Your task to perform on an android device: stop showing notifications on the lock screen Image 0: 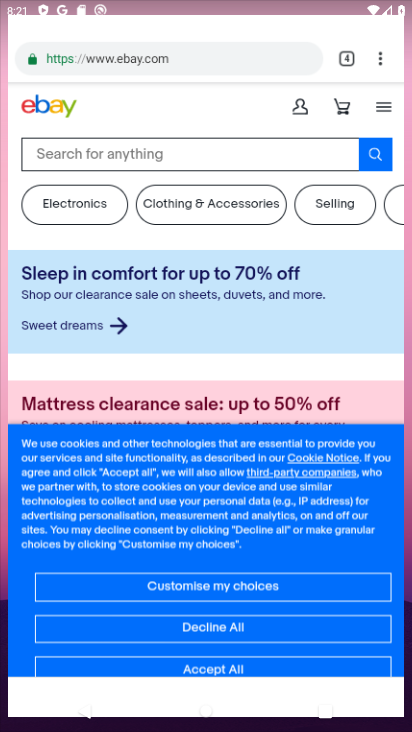
Step 0: drag from (245, 708) to (210, 215)
Your task to perform on an android device: stop showing notifications on the lock screen Image 1: 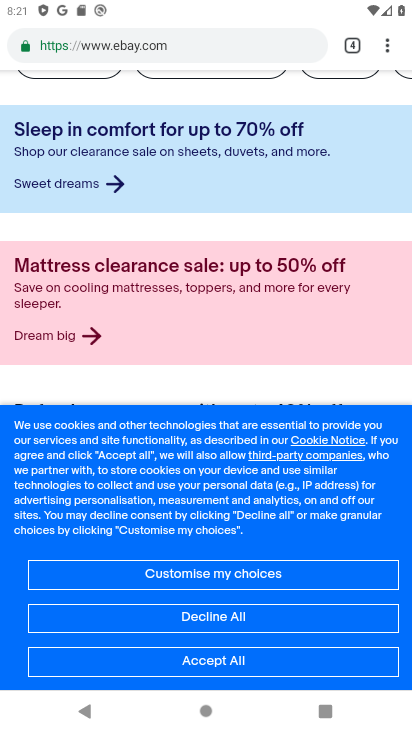
Step 1: press back button
Your task to perform on an android device: stop showing notifications on the lock screen Image 2: 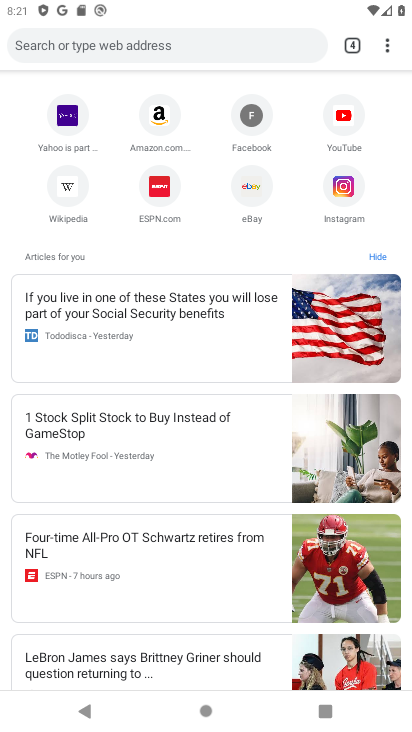
Step 2: press home button
Your task to perform on an android device: stop showing notifications on the lock screen Image 3: 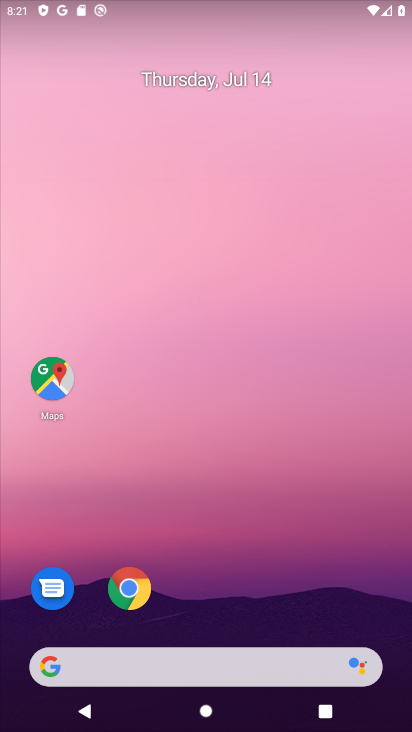
Step 3: drag from (288, 637) to (211, 42)
Your task to perform on an android device: stop showing notifications on the lock screen Image 4: 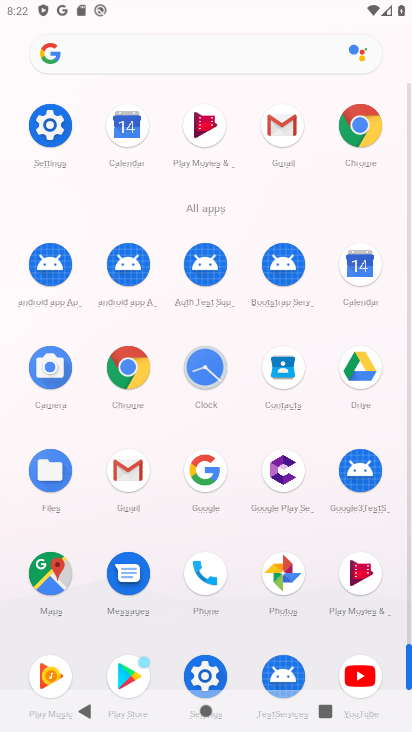
Step 4: click (42, 135)
Your task to perform on an android device: stop showing notifications on the lock screen Image 5: 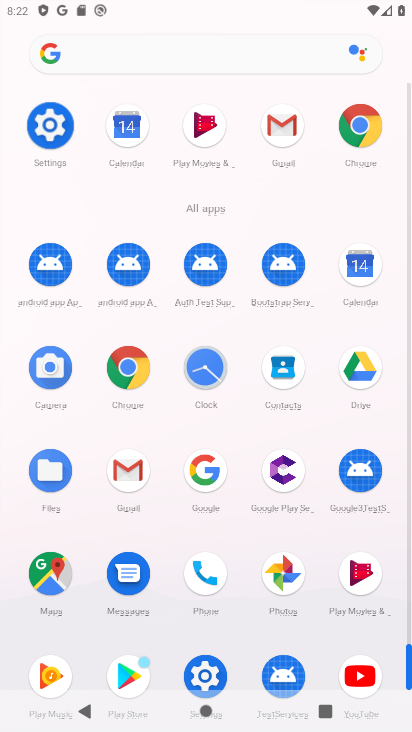
Step 5: click (44, 130)
Your task to perform on an android device: stop showing notifications on the lock screen Image 6: 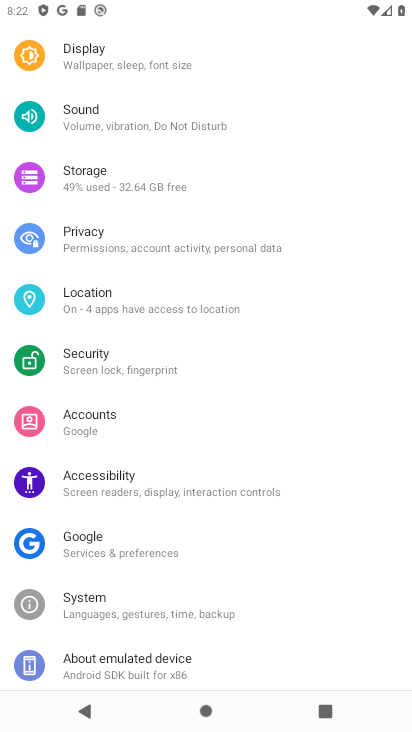
Step 6: click (54, 128)
Your task to perform on an android device: stop showing notifications on the lock screen Image 7: 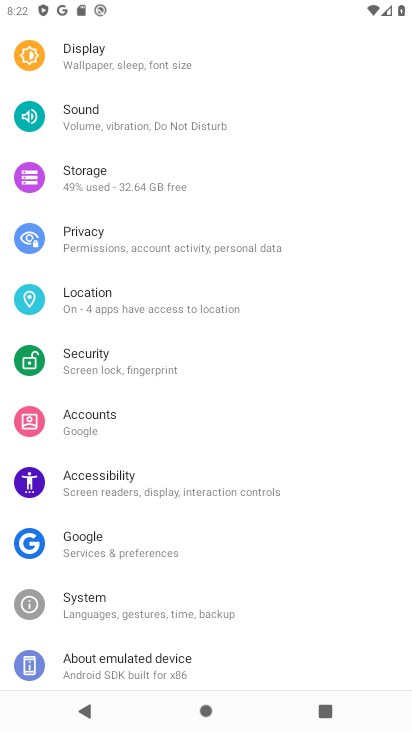
Step 7: click (54, 128)
Your task to perform on an android device: stop showing notifications on the lock screen Image 8: 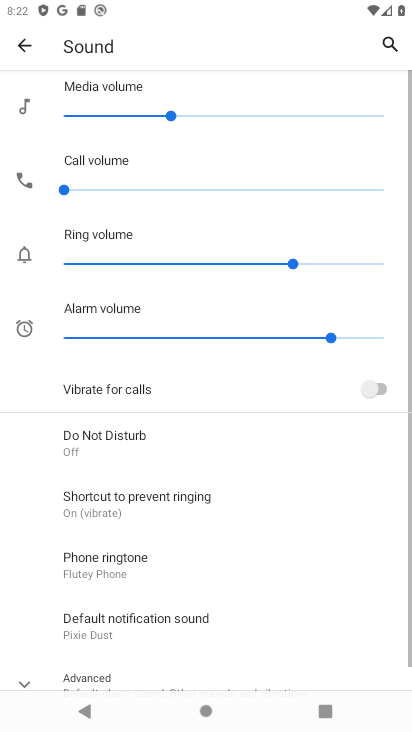
Step 8: click (25, 38)
Your task to perform on an android device: stop showing notifications on the lock screen Image 9: 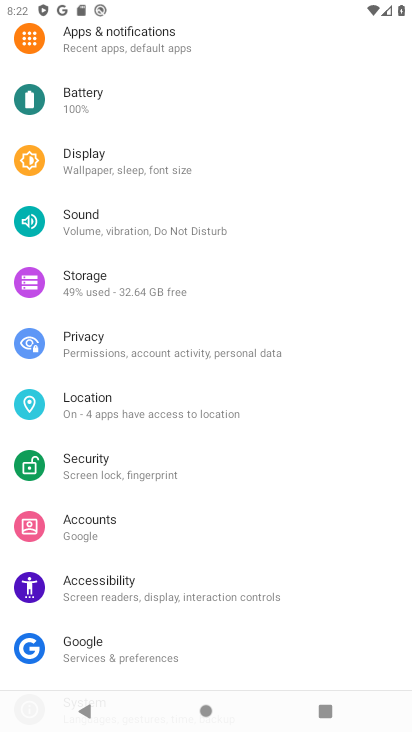
Step 9: click (122, 35)
Your task to perform on an android device: stop showing notifications on the lock screen Image 10: 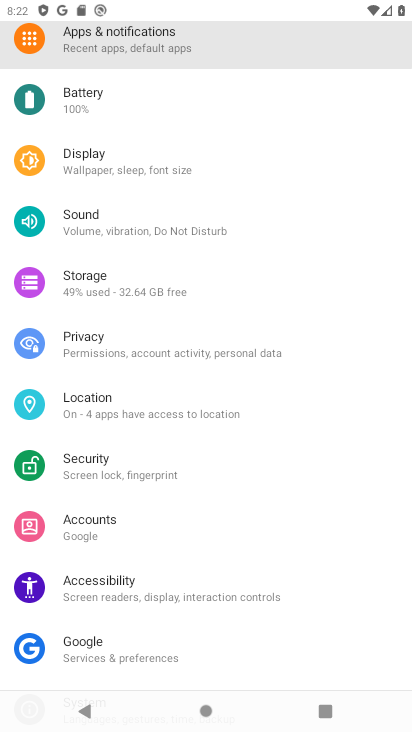
Step 10: click (122, 35)
Your task to perform on an android device: stop showing notifications on the lock screen Image 11: 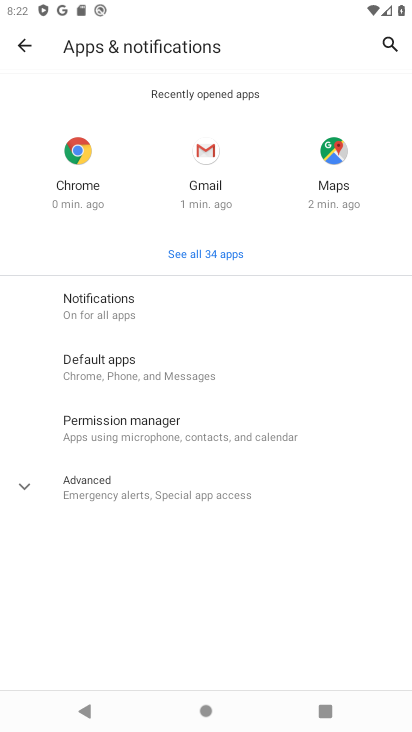
Step 11: click (96, 298)
Your task to perform on an android device: stop showing notifications on the lock screen Image 12: 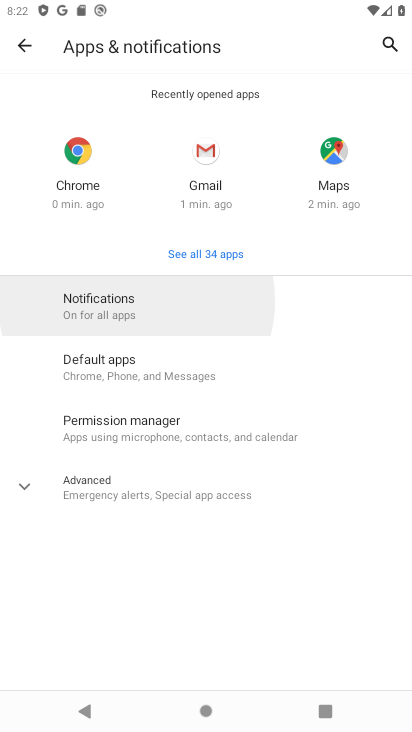
Step 12: click (96, 301)
Your task to perform on an android device: stop showing notifications on the lock screen Image 13: 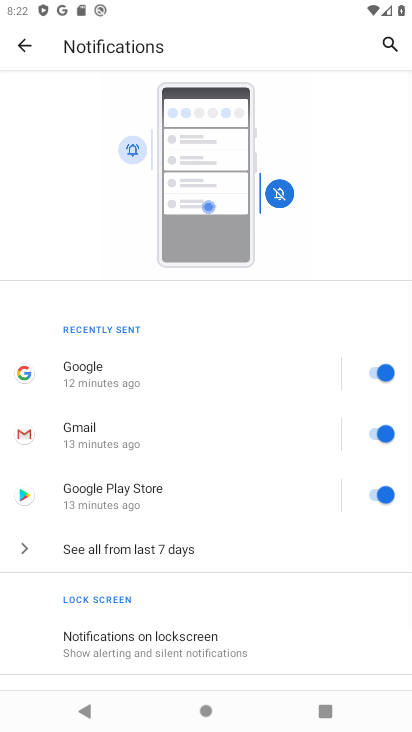
Step 13: click (138, 639)
Your task to perform on an android device: stop showing notifications on the lock screen Image 14: 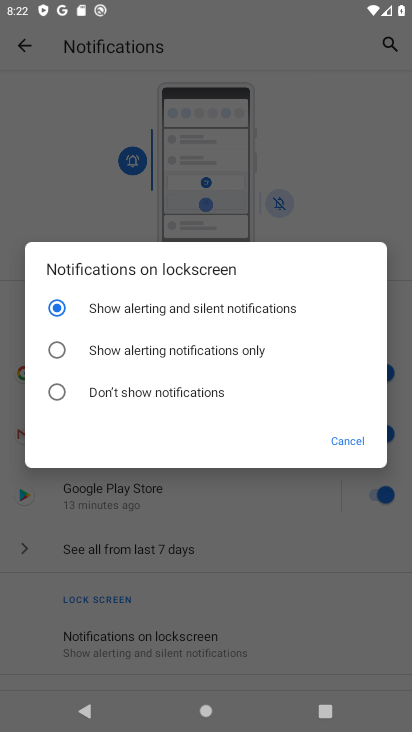
Step 14: click (349, 440)
Your task to perform on an android device: stop showing notifications on the lock screen Image 15: 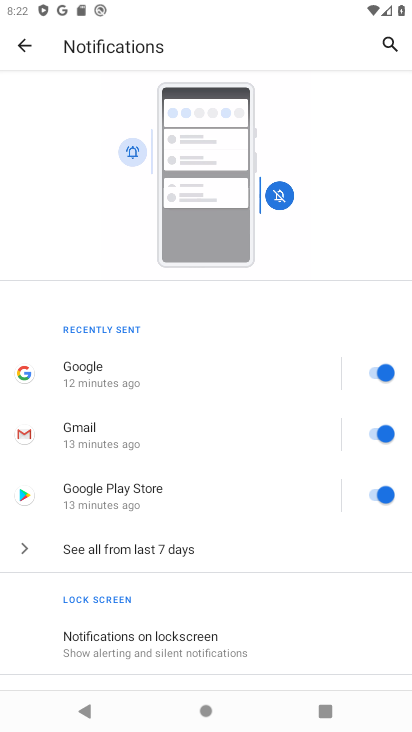
Step 15: task complete